Your task to perform on an android device: Empty the shopping cart on newegg. Add macbook to the cart on newegg Image 0: 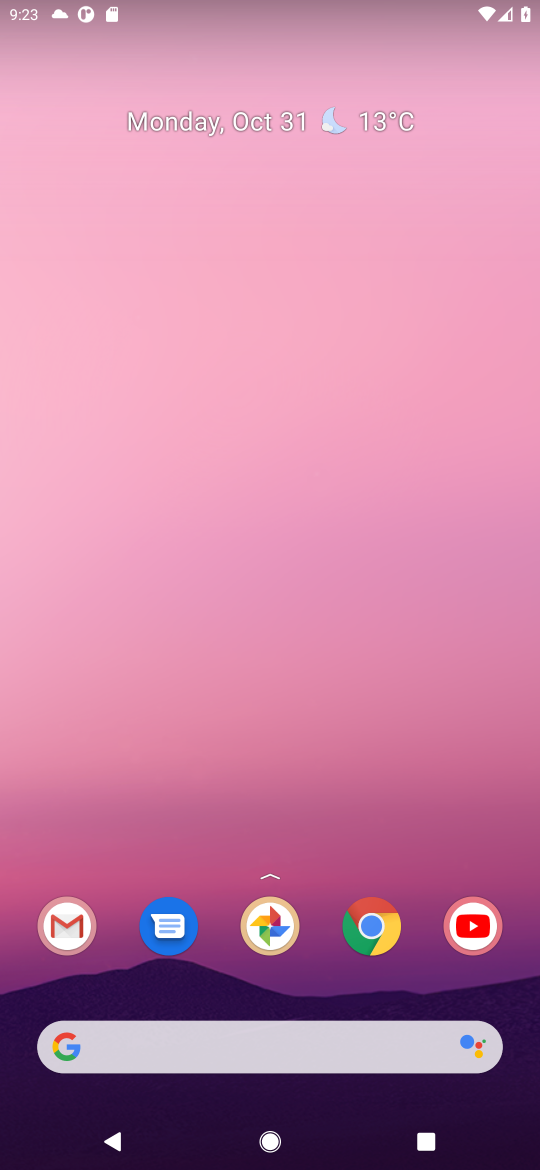
Step 0: click (341, 1050)
Your task to perform on an android device: Empty the shopping cart on newegg. Add macbook to the cart on newegg Image 1: 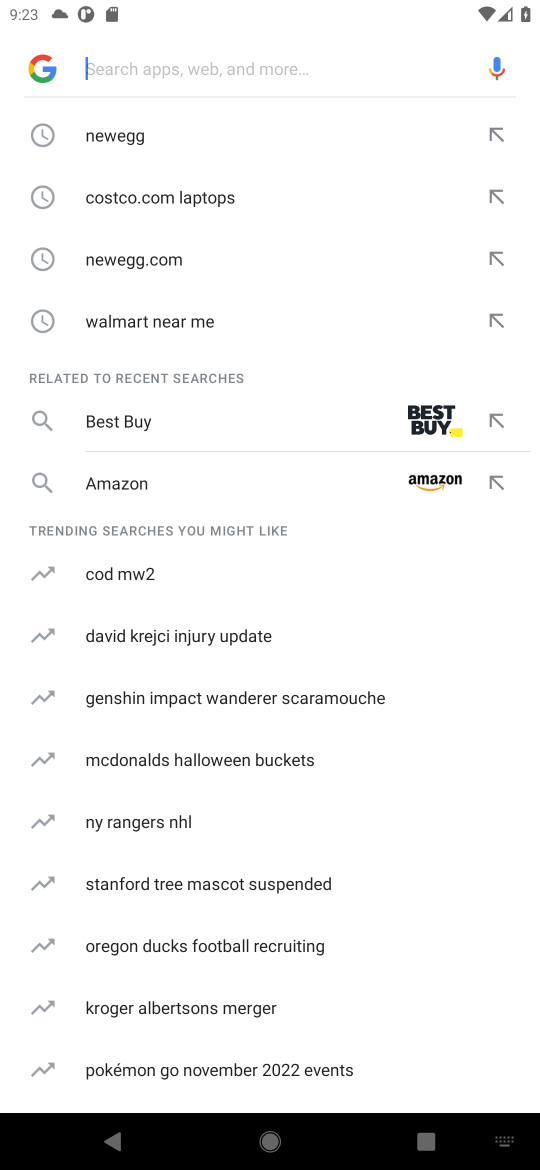
Step 1: click (112, 136)
Your task to perform on an android device: Empty the shopping cart on newegg. Add macbook to the cart on newegg Image 2: 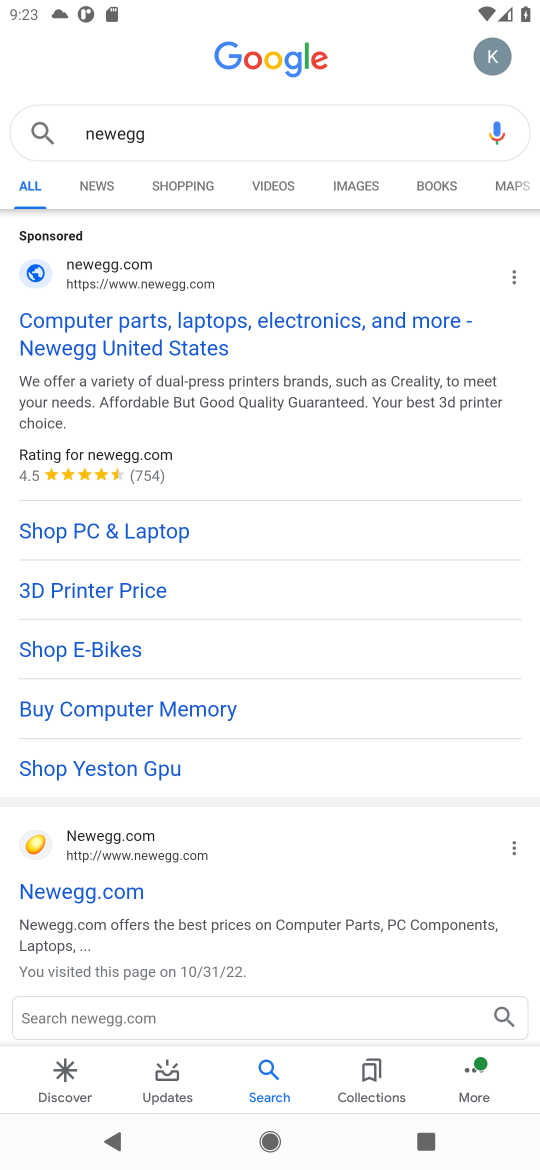
Step 2: click (106, 892)
Your task to perform on an android device: Empty the shopping cart on newegg. Add macbook to the cart on newegg Image 3: 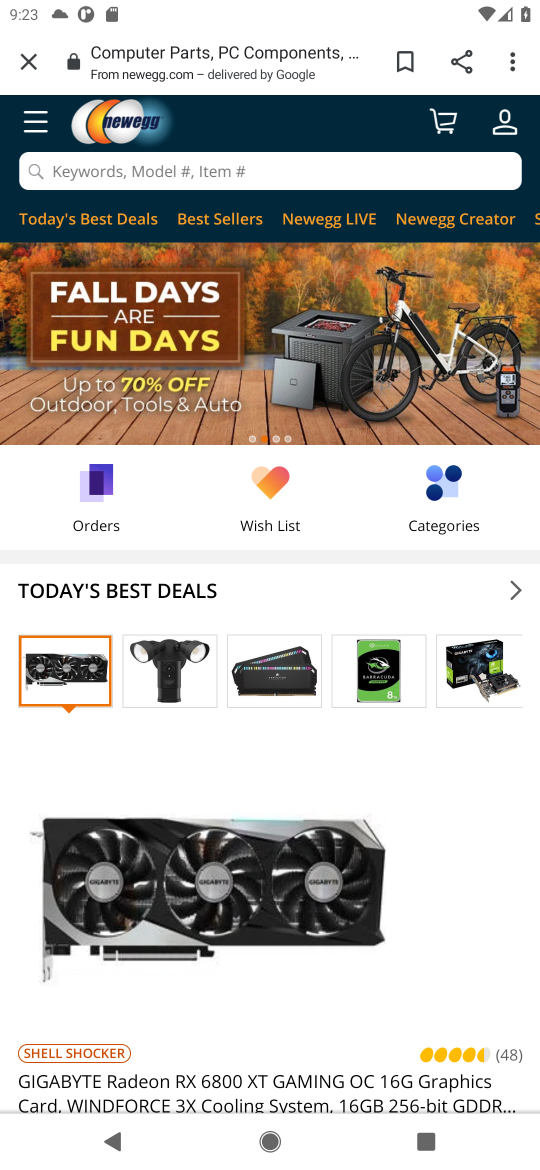
Step 3: click (275, 165)
Your task to perform on an android device: Empty the shopping cart on newegg. Add macbook to the cart on newegg Image 4: 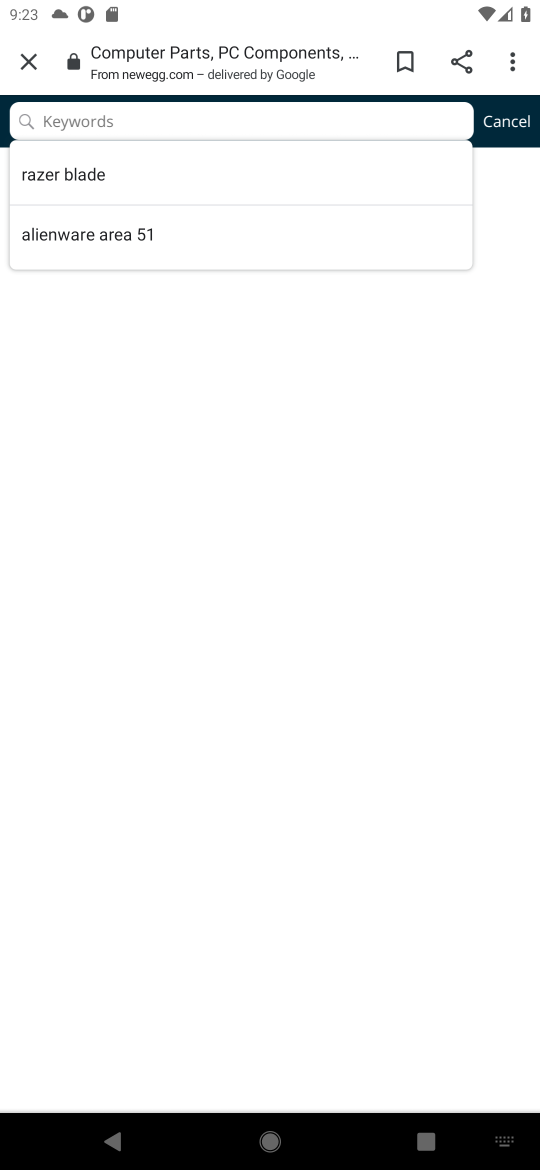
Step 4: type "macbook"
Your task to perform on an android device: Empty the shopping cart on newegg. Add macbook to the cart on newegg Image 5: 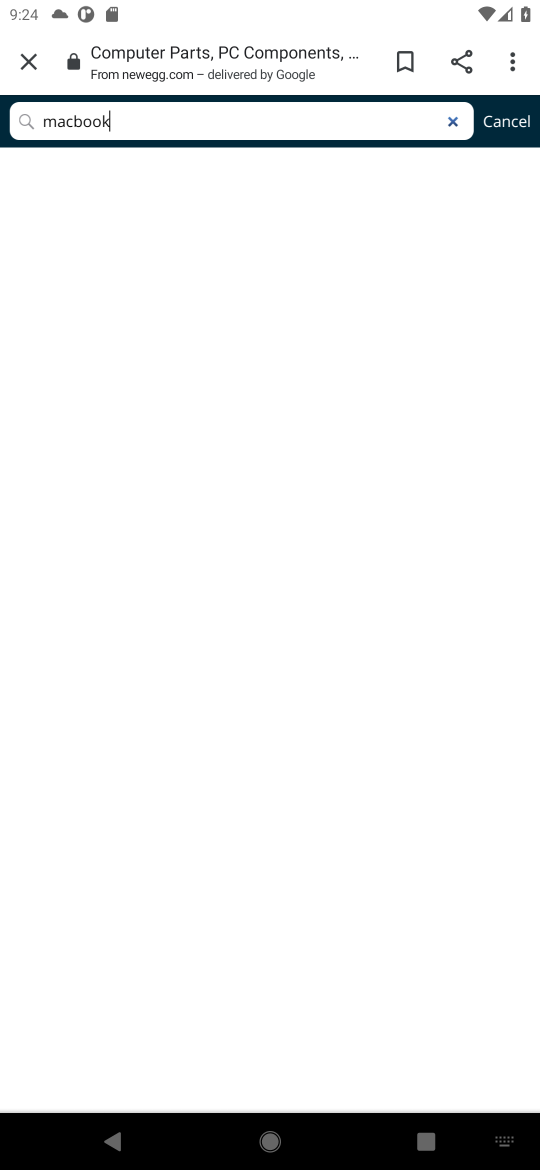
Step 5: click (29, 57)
Your task to perform on an android device: Empty the shopping cart on newegg. Add macbook to the cart on newegg Image 6: 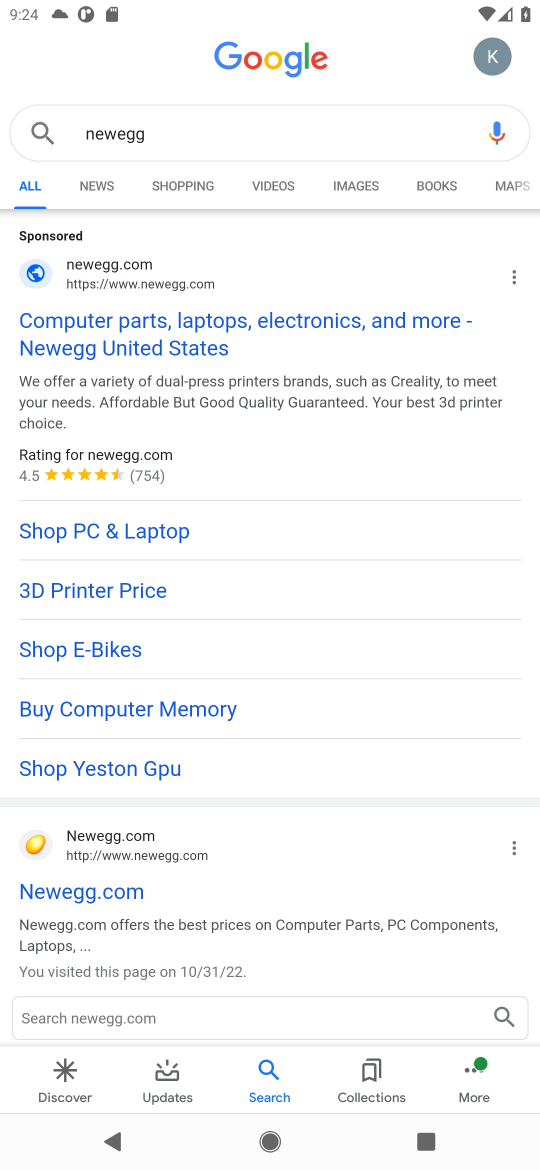
Step 6: click (71, 1012)
Your task to perform on an android device: Empty the shopping cart on newegg. Add macbook to the cart on newegg Image 7: 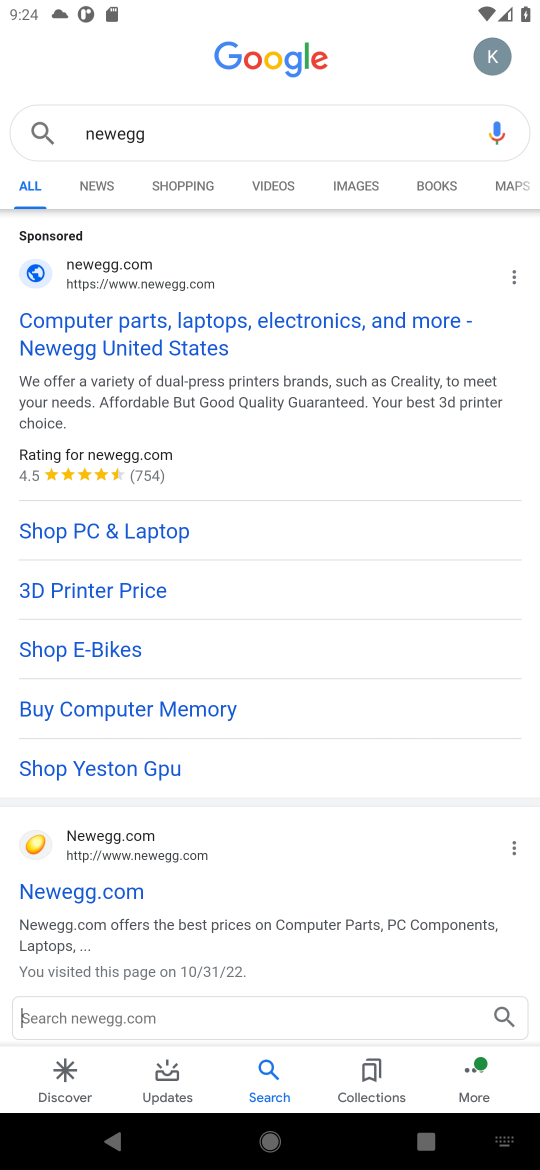
Step 7: type "macbook"
Your task to perform on an android device: Empty the shopping cart on newegg. Add macbook to the cart on newegg Image 8: 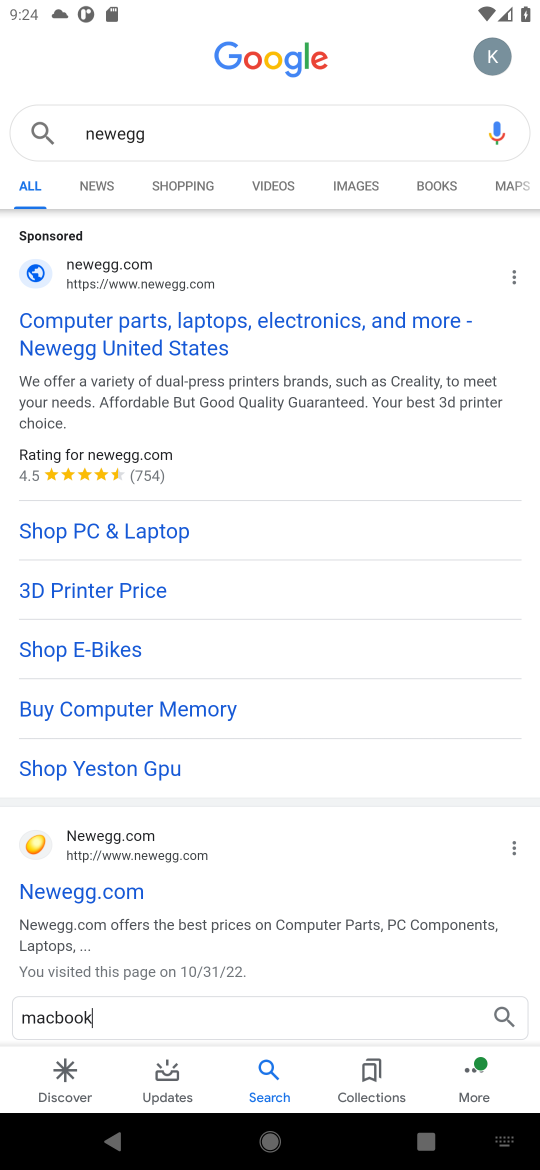
Step 8: click (509, 1010)
Your task to perform on an android device: Empty the shopping cart on newegg. Add macbook to the cart on newegg Image 9: 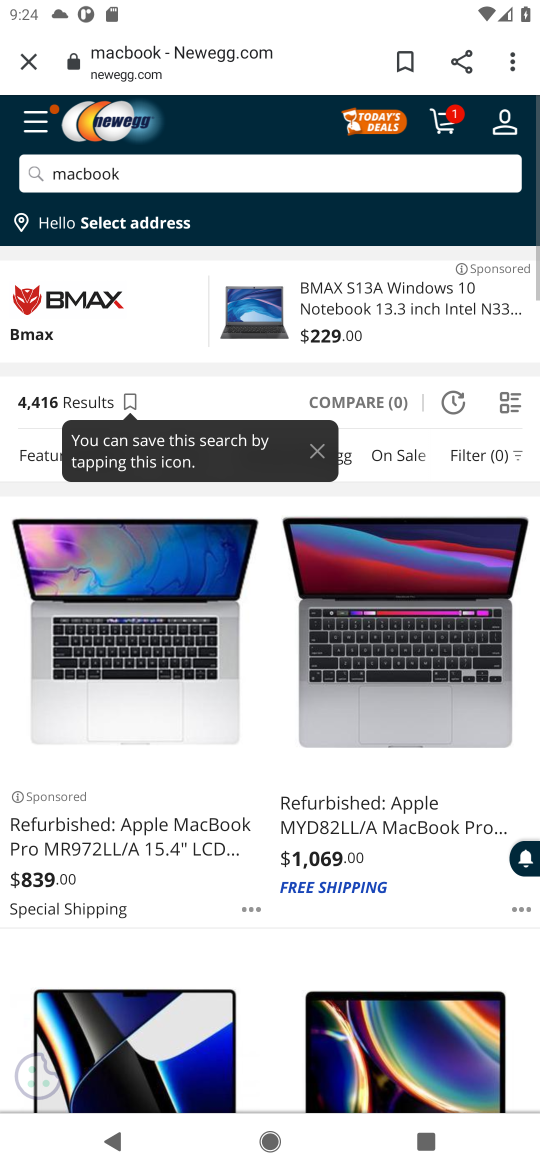
Step 9: click (344, 812)
Your task to perform on an android device: Empty the shopping cart on newegg. Add macbook to the cart on newegg Image 10: 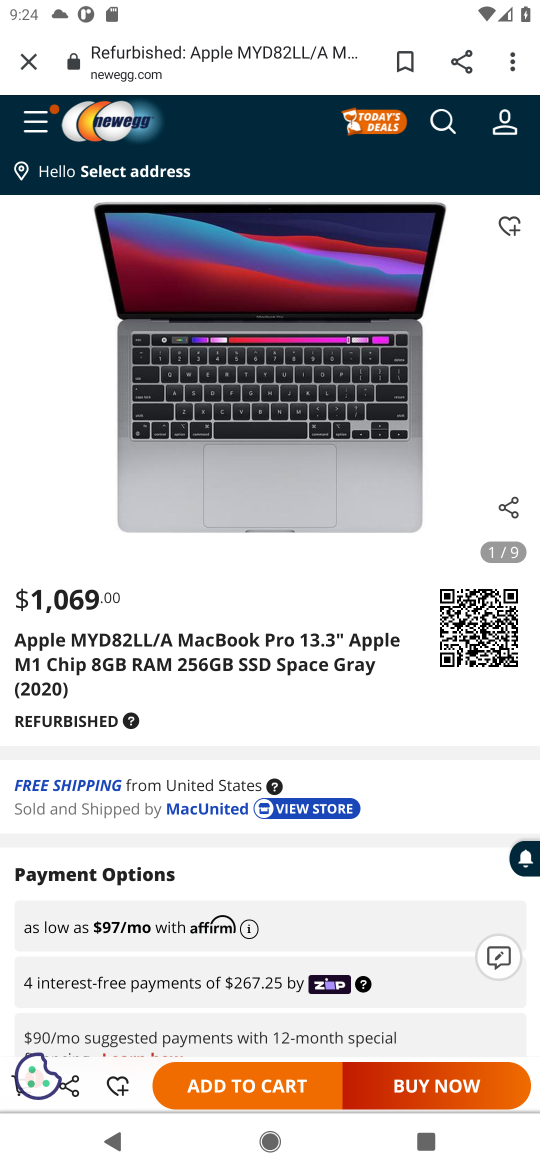
Step 10: click (262, 1083)
Your task to perform on an android device: Empty the shopping cart on newegg. Add macbook to the cart on newegg Image 11: 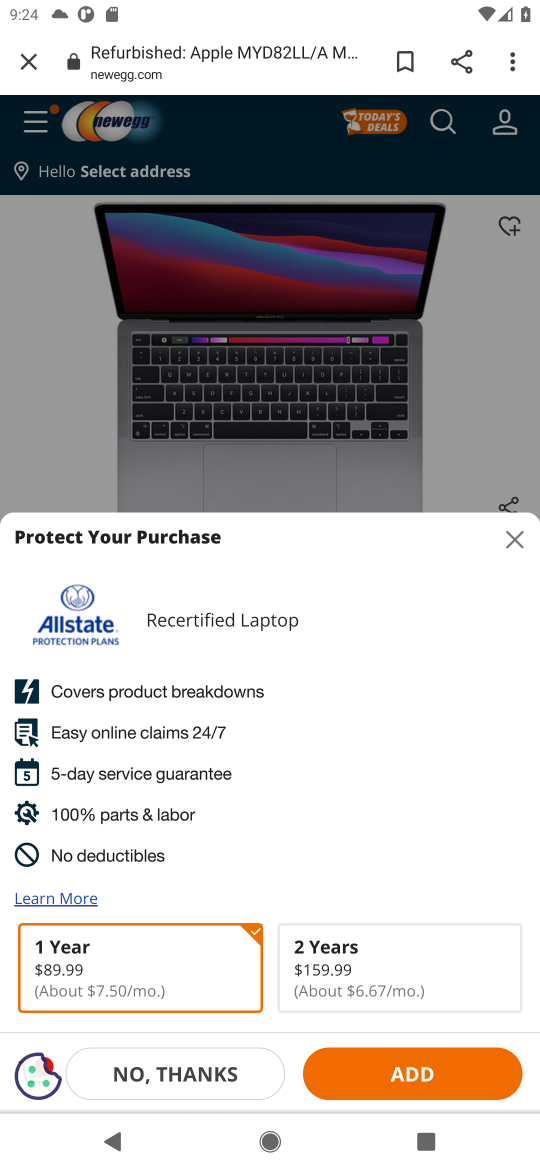
Step 11: task complete